Your task to perform on an android device: What's on my calendar today? Image 0: 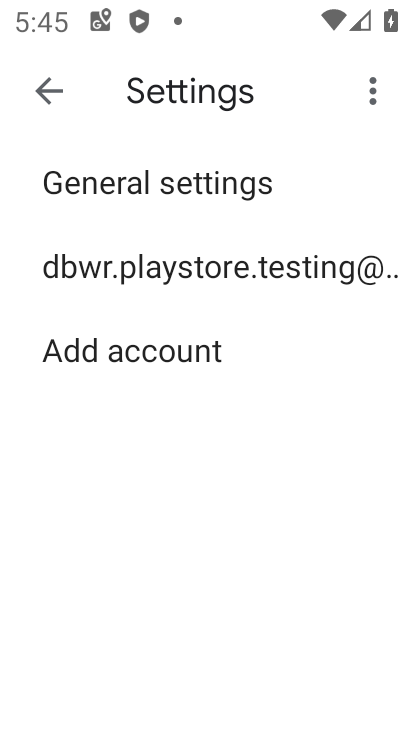
Step 0: press home button
Your task to perform on an android device: What's on my calendar today? Image 1: 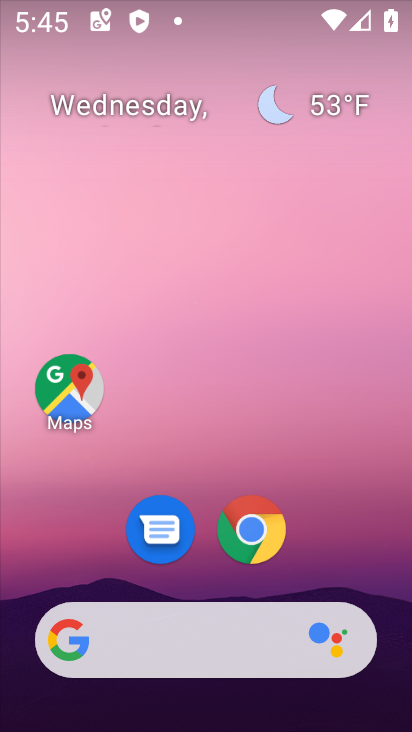
Step 1: drag from (238, 580) to (179, 263)
Your task to perform on an android device: What's on my calendar today? Image 2: 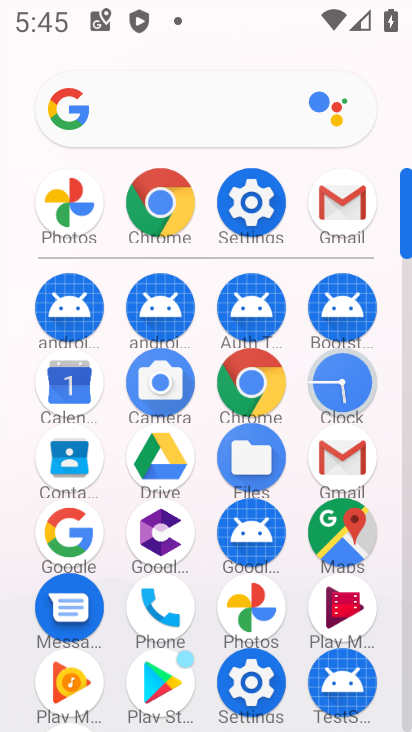
Step 2: click (77, 383)
Your task to perform on an android device: What's on my calendar today? Image 3: 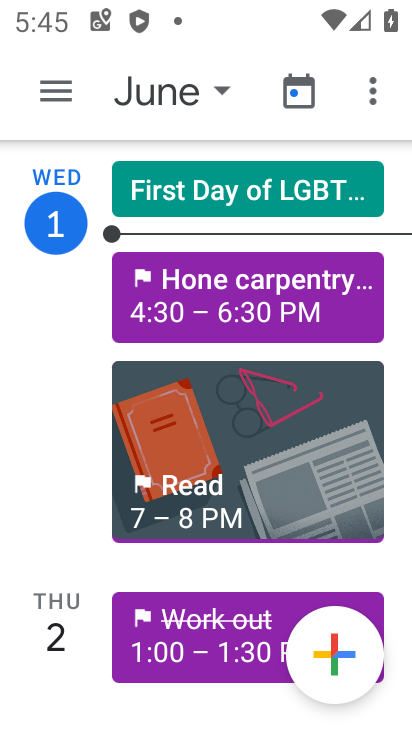
Step 3: task complete